Your task to perform on an android device: Go to Google Image 0: 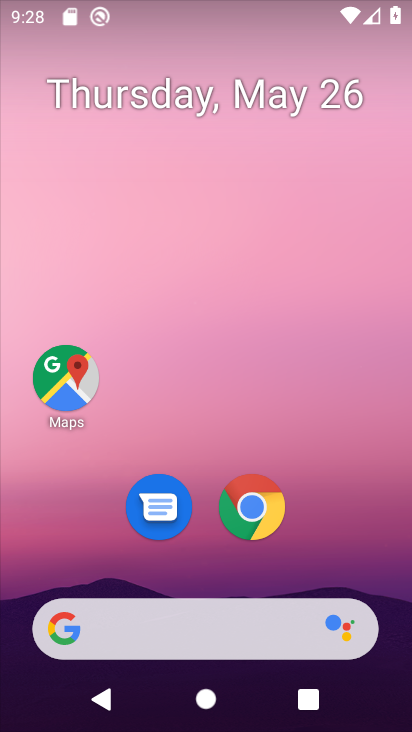
Step 0: drag from (371, 562) to (380, 206)
Your task to perform on an android device: Go to Google Image 1: 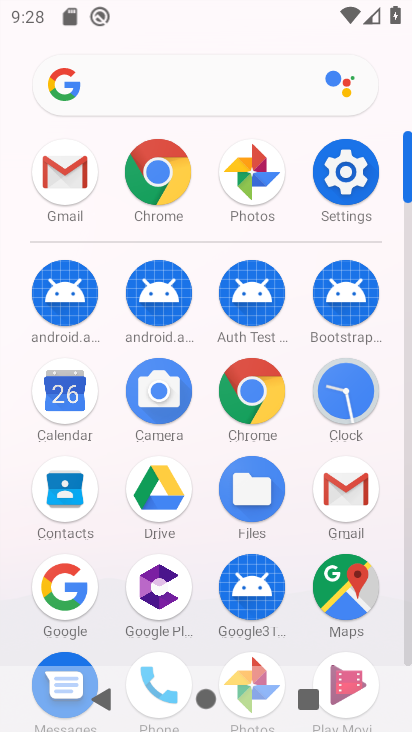
Step 1: click (71, 594)
Your task to perform on an android device: Go to Google Image 2: 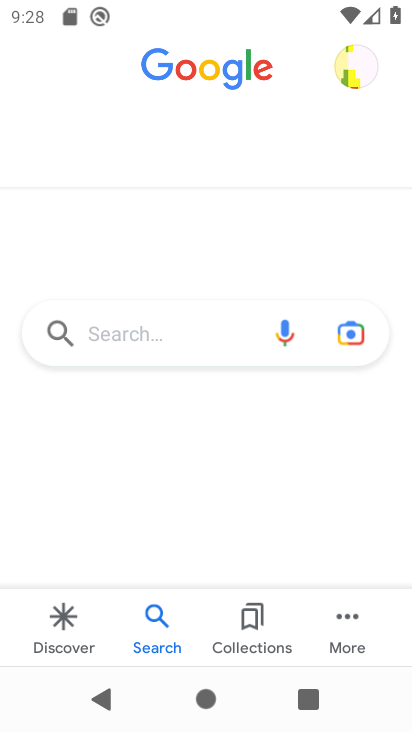
Step 2: task complete